Your task to perform on an android device: clear history in the chrome app Image 0: 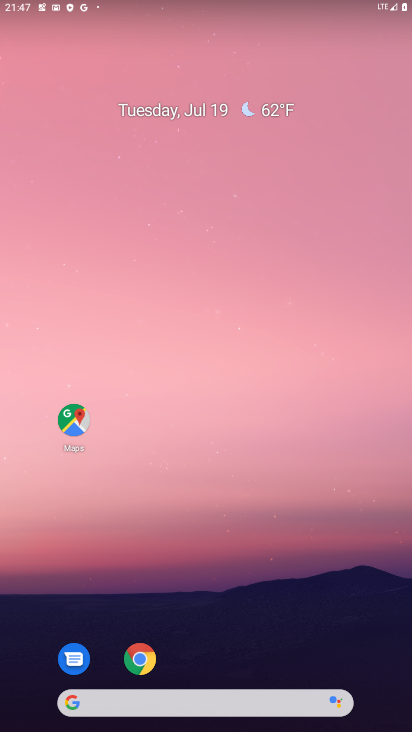
Step 0: drag from (308, 678) to (291, 4)
Your task to perform on an android device: clear history in the chrome app Image 1: 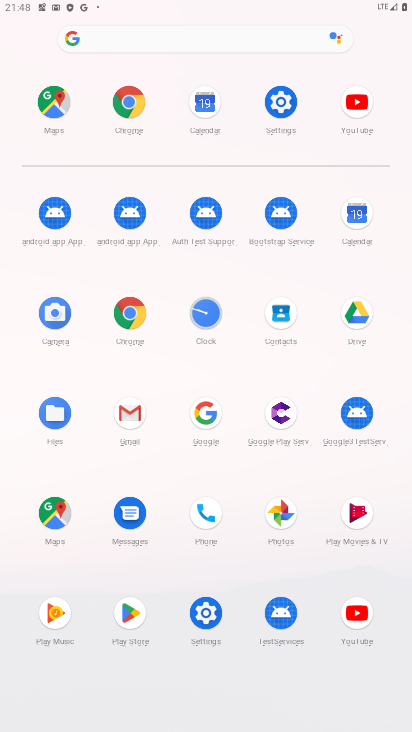
Step 1: click (138, 344)
Your task to perform on an android device: clear history in the chrome app Image 2: 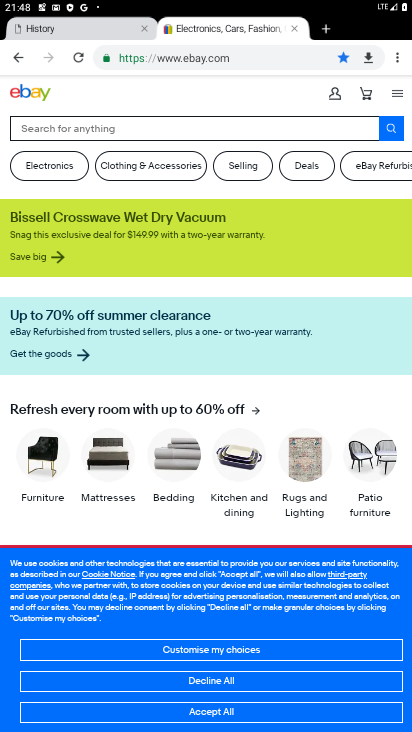
Step 2: drag from (404, 63) to (258, 220)
Your task to perform on an android device: clear history in the chrome app Image 3: 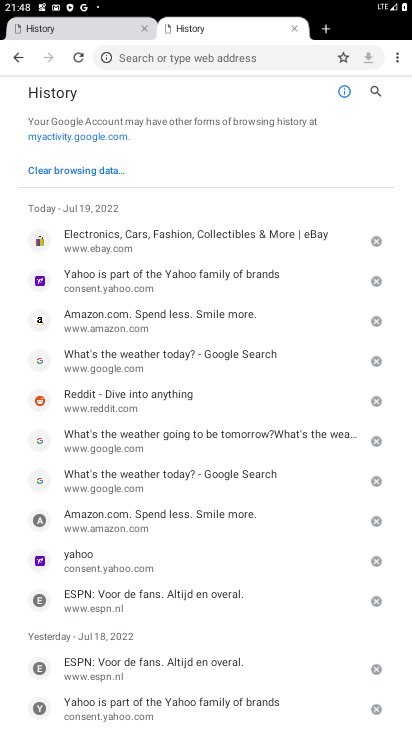
Step 3: click (82, 169)
Your task to perform on an android device: clear history in the chrome app Image 4: 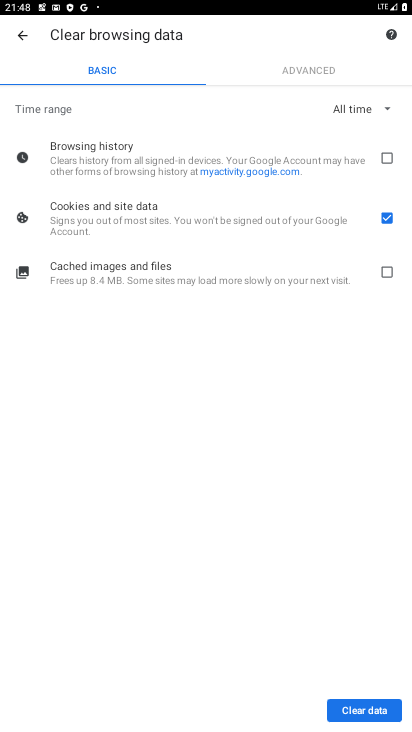
Step 4: click (361, 708)
Your task to perform on an android device: clear history in the chrome app Image 5: 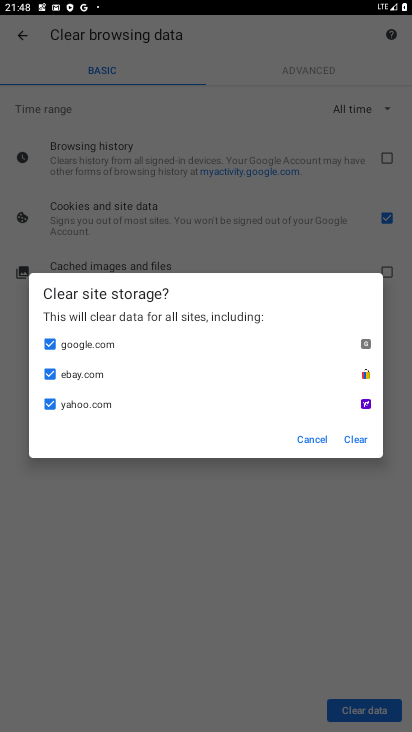
Step 5: click (346, 442)
Your task to perform on an android device: clear history in the chrome app Image 6: 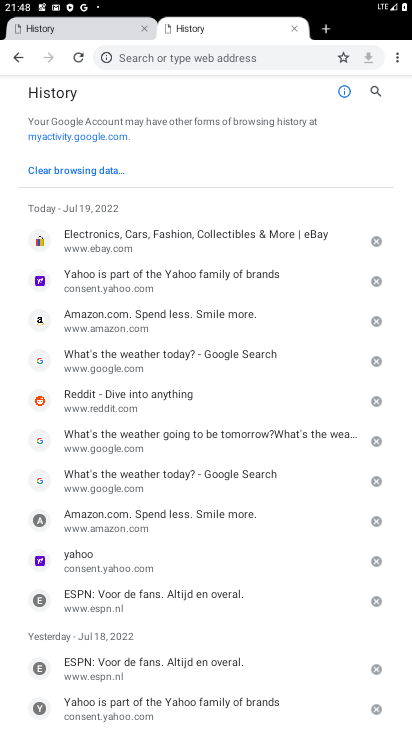
Step 6: click (88, 171)
Your task to perform on an android device: clear history in the chrome app Image 7: 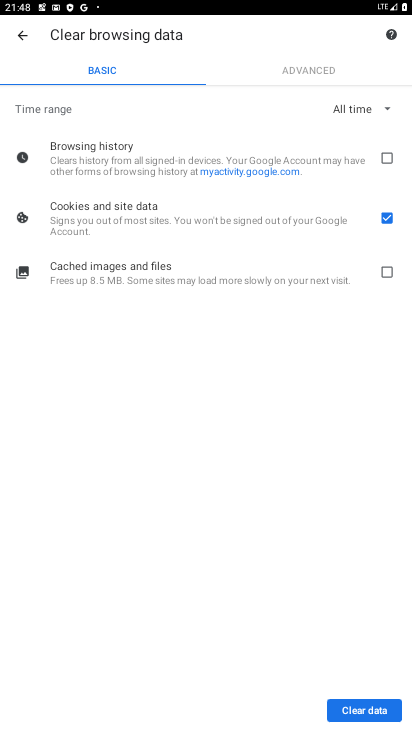
Step 7: click (384, 158)
Your task to perform on an android device: clear history in the chrome app Image 8: 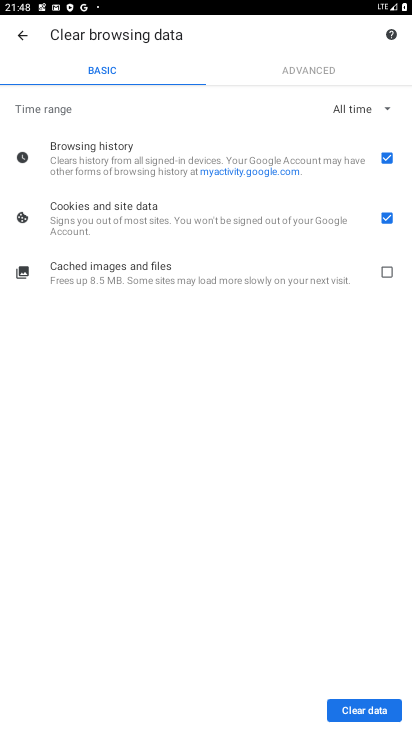
Step 8: click (375, 698)
Your task to perform on an android device: clear history in the chrome app Image 9: 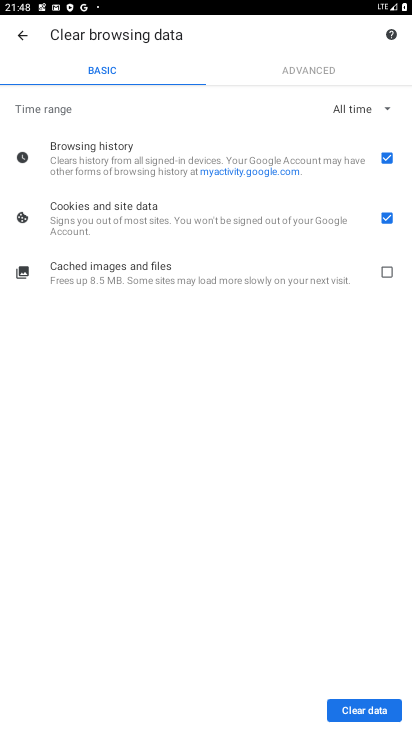
Step 9: click (375, 708)
Your task to perform on an android device: clear history in the chrome app Image 10: 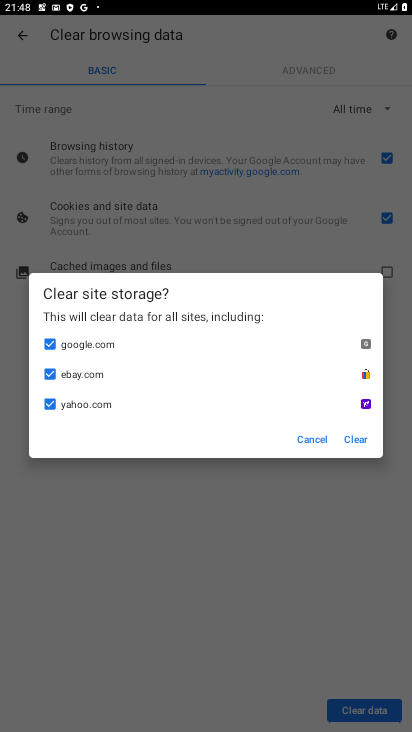
Step 10: click (354, 442)
Your task to perform on an android device: clear history in the chrome app Image 11: 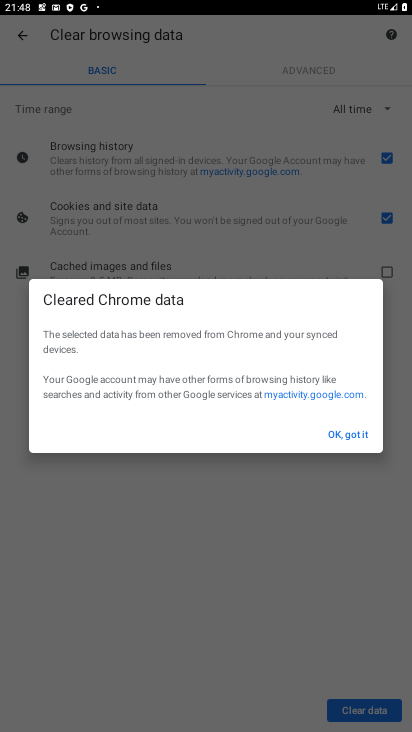
Step 11: click (354, 442)
Your task to perform on an android device: clear history in the chrome app Image 12: 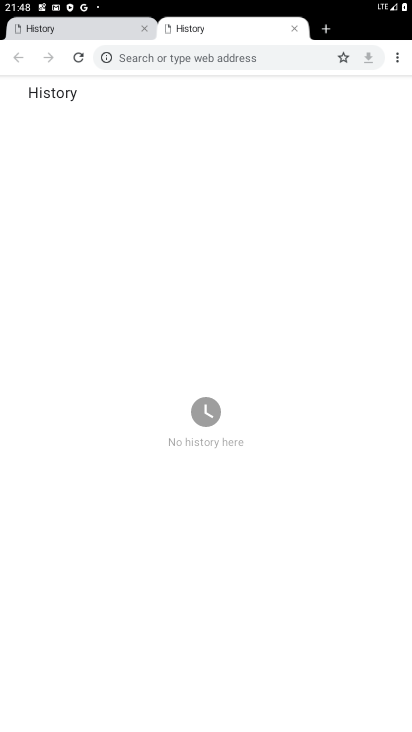
Step 12: task complete